Your task to perform on an android device: Open Youtube and go to the subscriptions tab Image 0: 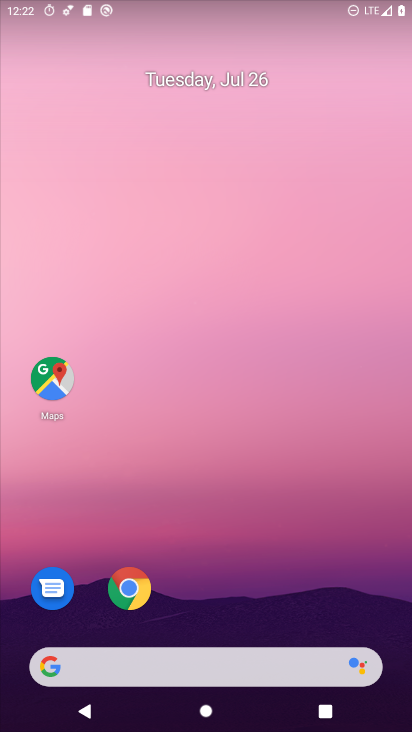
Step 0: drag from (272, 611) to (271, 124)
Your task to perform on an android device: Open Youtube and go to the subscriptions tab Image 1: 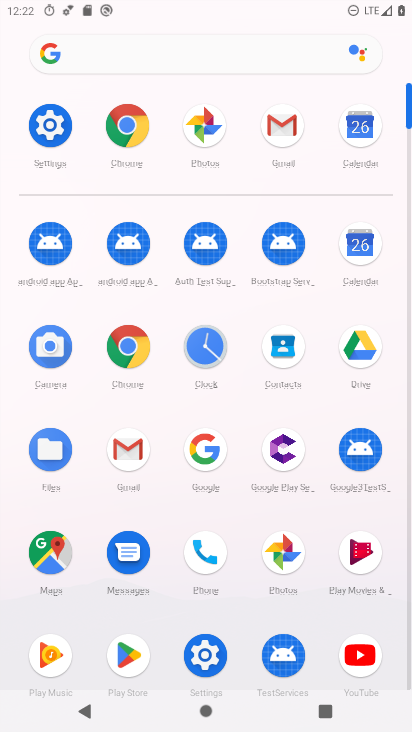
Step 1: drag from (241, 192) to (228, 35)
Your task to perform on an android device: Open Youtube and go to the subscriptions tab Image 2: 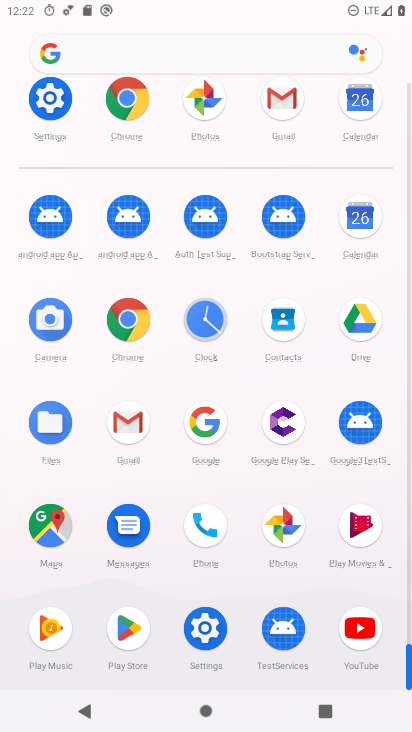
Step 2: click (360, 616)
Your task to perform on an android device: Open Youtube and go to the subscriptions tab Image 3: 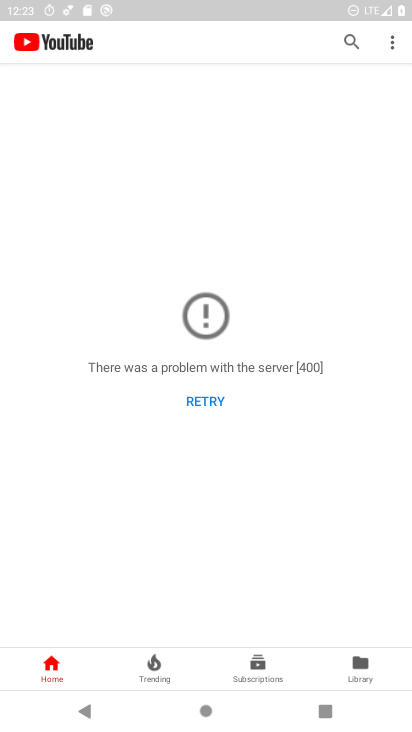
Step 3: click (264, 670)
Your task to perform on an android device: Open Youtube and go to the subscriptions tab Image 4: 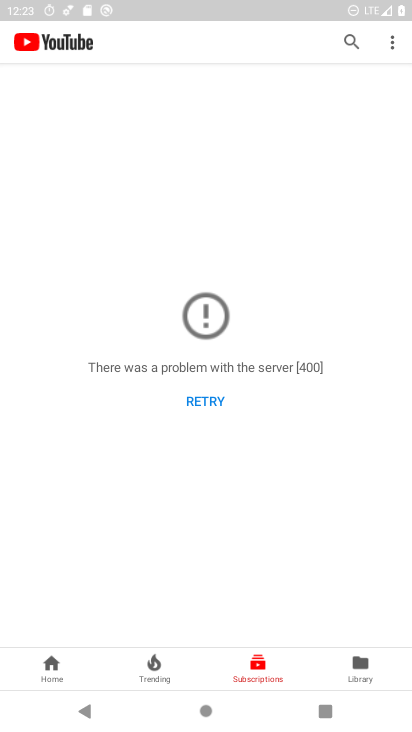
Step 4: task complete